Your task to perform on an android device: turn off picture-in-picture Image 0: 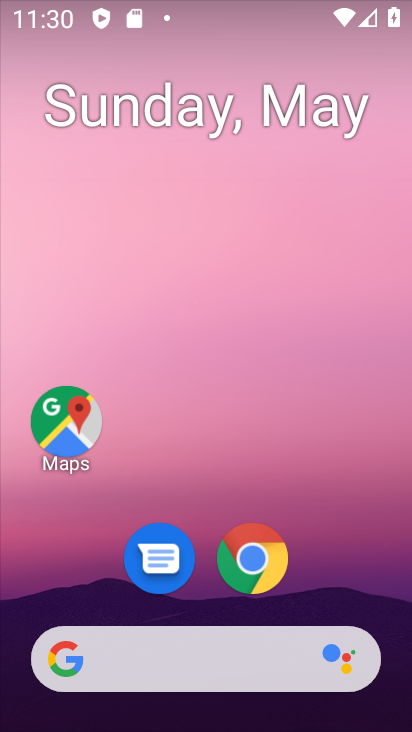
Step 0: drag from (379, 583) to (363, 127)
Your task to perform on an android device: turn off picture-in-picture Image 1: 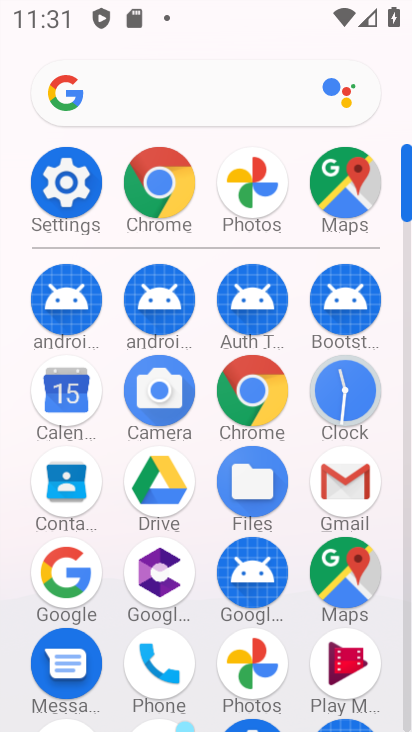
Step 1: click (62, 193)
Your task to perform on an android device: turn off picture-in-picture Image 2: 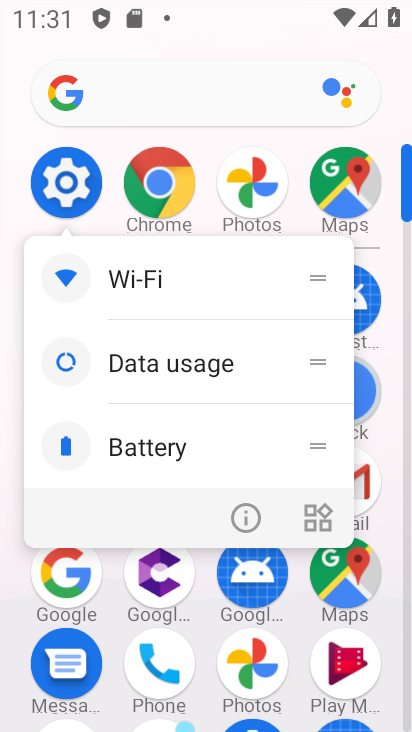
Step 2: click (63, 191)
Your task to perform on an android device: turn off picture-in-picture Image 3: 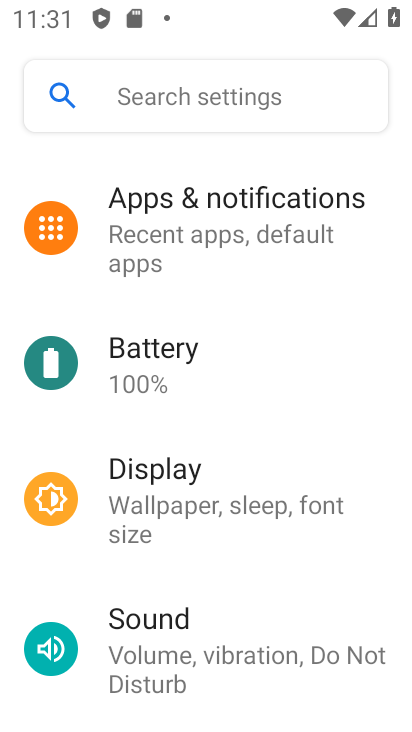
Step 3: click (207, 226)
Your task to perform on an android device: turn off picture-in-picture Image 4: 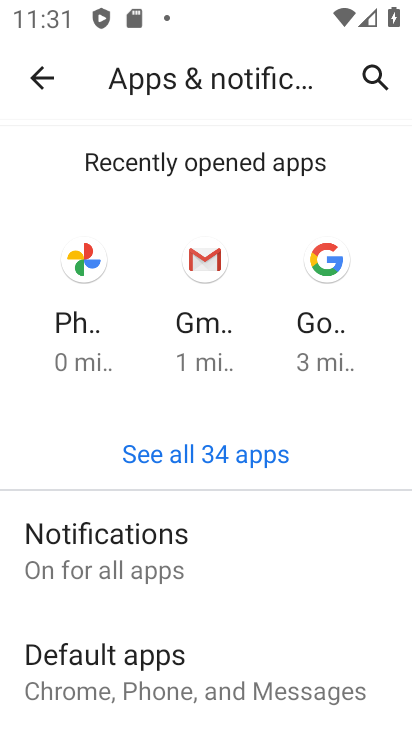
Step 4: click (135, 569)
Your task to perform on an android device: turn off picture-in-picture Image 5: 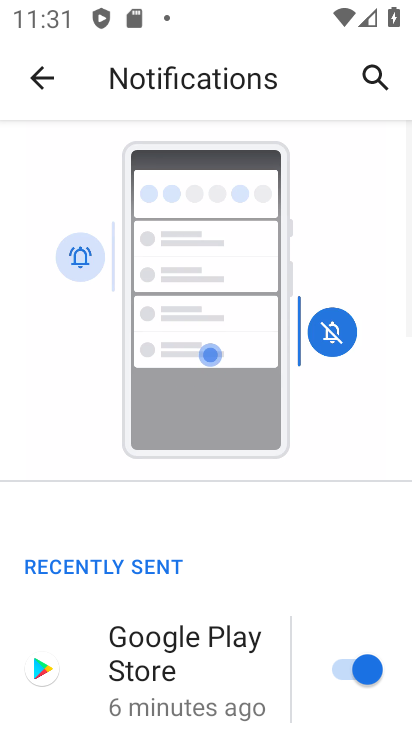
Step 5: drag from (285, 681) to (283, 362)
Your task to perform on an android device: turn off picture-in-picture Image 6: 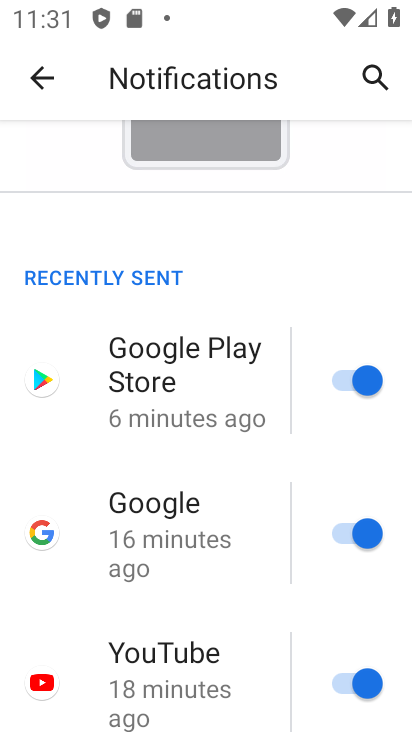
Step 6: drag from (263, 670) to (306, 168)
Your task to perform on an android device: turn off picture-in-picture Image 7: 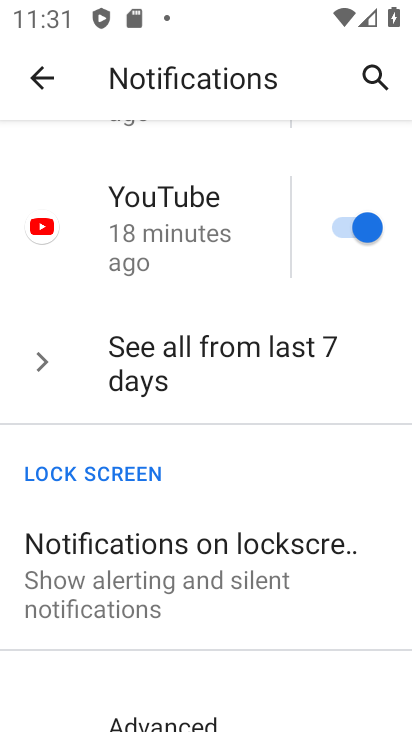
Step 7: click (33, 89)
Your task to perform on an android device: turn off picture-in-picture Image 8: 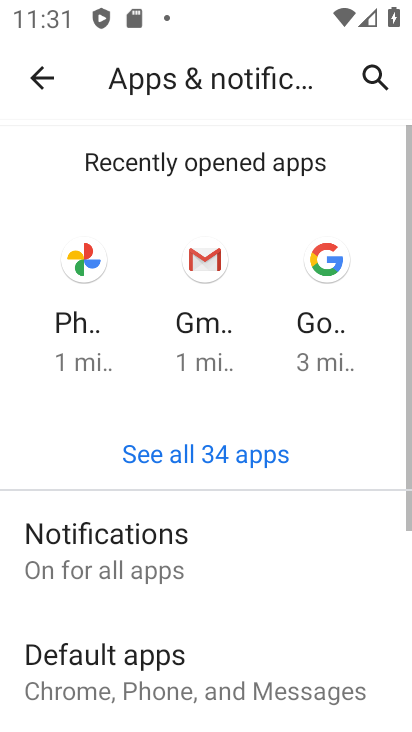
Step 8: drag from (256, 630) to (273, 373)
Your task to perform on an android device: turn off picture-in-picture Image 9: 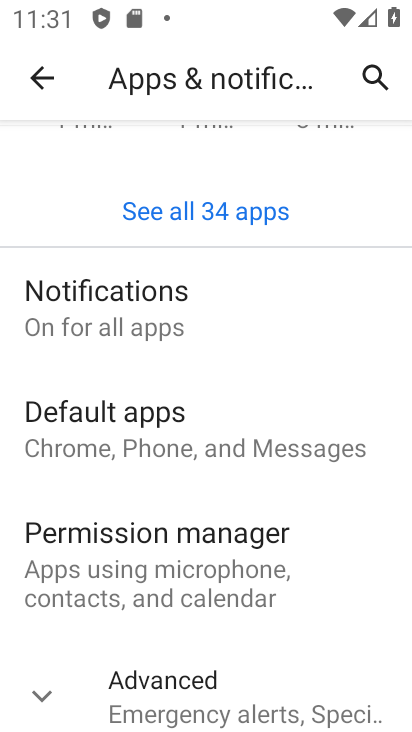
Step 9: drag from (284, 654) to (308, 493)
Your task to perform on an android device: turn off picture-in-picture Image 10: 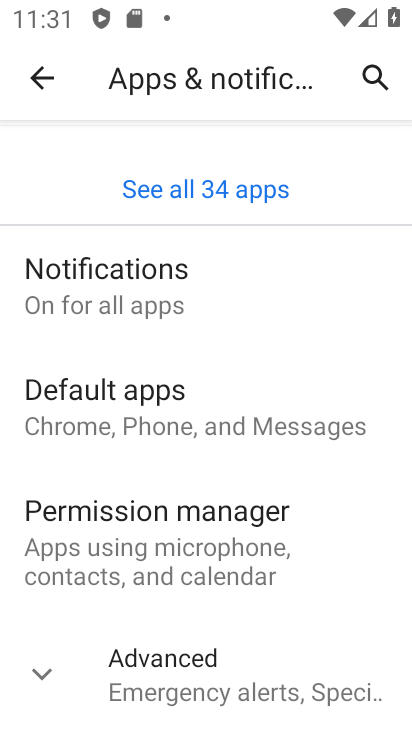
Step 10: click (234, 665)
Your task to perform on an android device: turn off picture-in-picture Image 11: 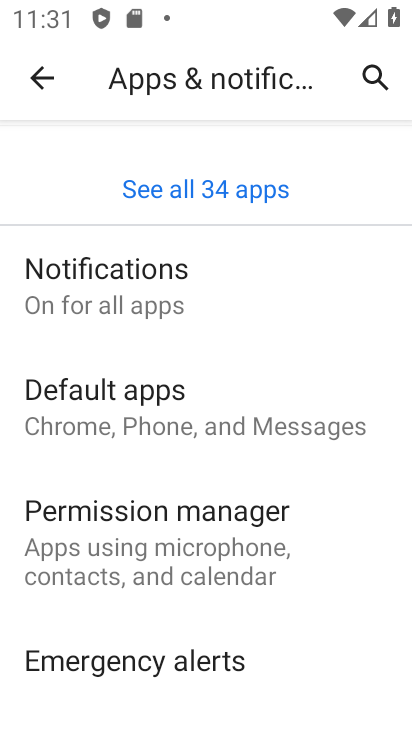
Step 11: drag from (330, 629) to (329, 363)
Your task to perform on an android device: turn off picture-in-picture Image 12: 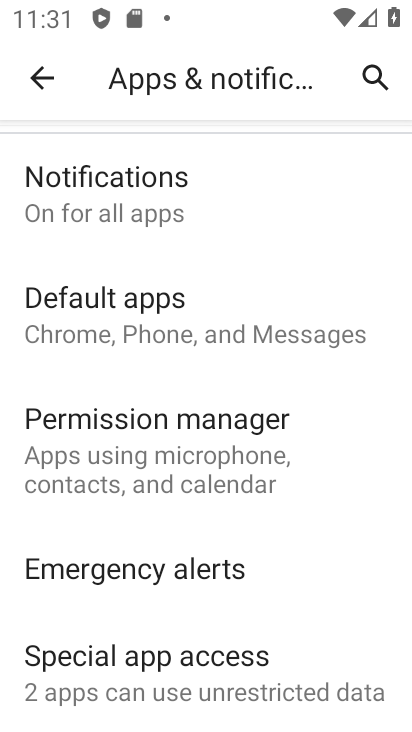
Step 12: click (244, 686)
Your task to perform on an android device: turn off picture-in-picture Image 13: 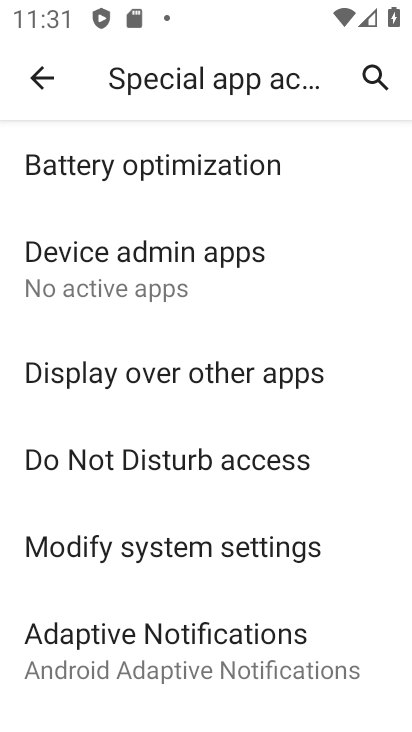
Step 13: drag from (364, 595) to (370, 330)
Your task to perform on an android device: turn off picture-in-picture Image 14: 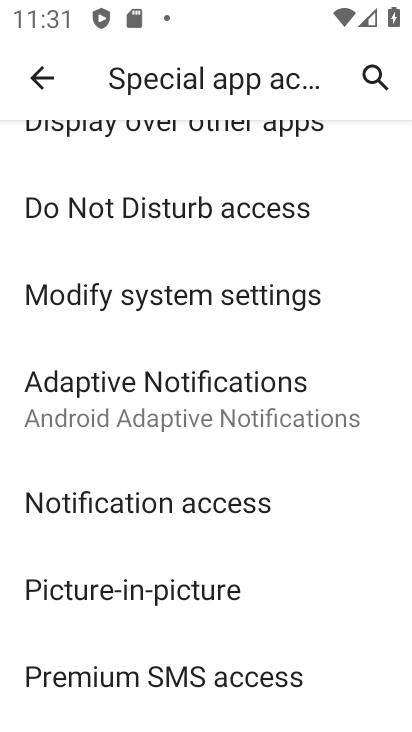
Step 14: click (212, 598)
Your task to perform on an android device: turn off picture-in-picture Image 15: 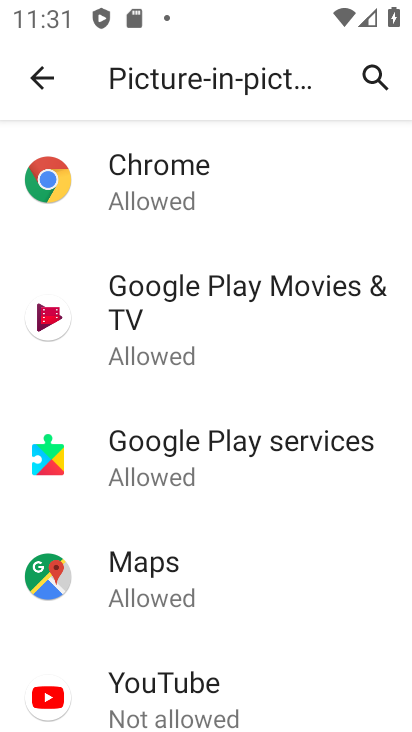
Step 15: click (161, 706)
Your task to perform on an android device: turn off picture-in-picture Image 16: 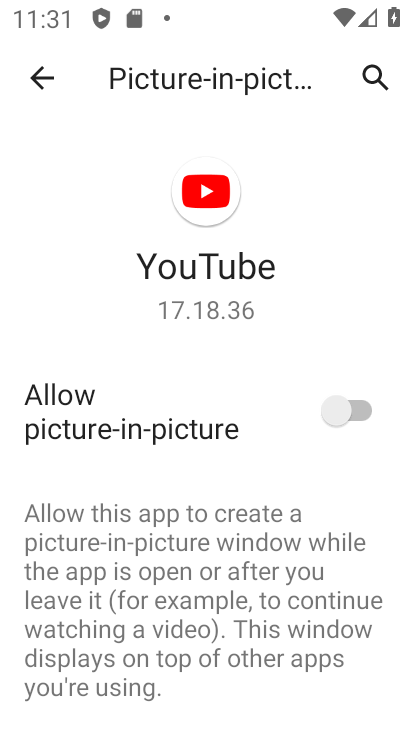
Step 16: task complete